Your task to perform on an android device: Add "logitech g502" to the cart on bestbuy.com Image 0: 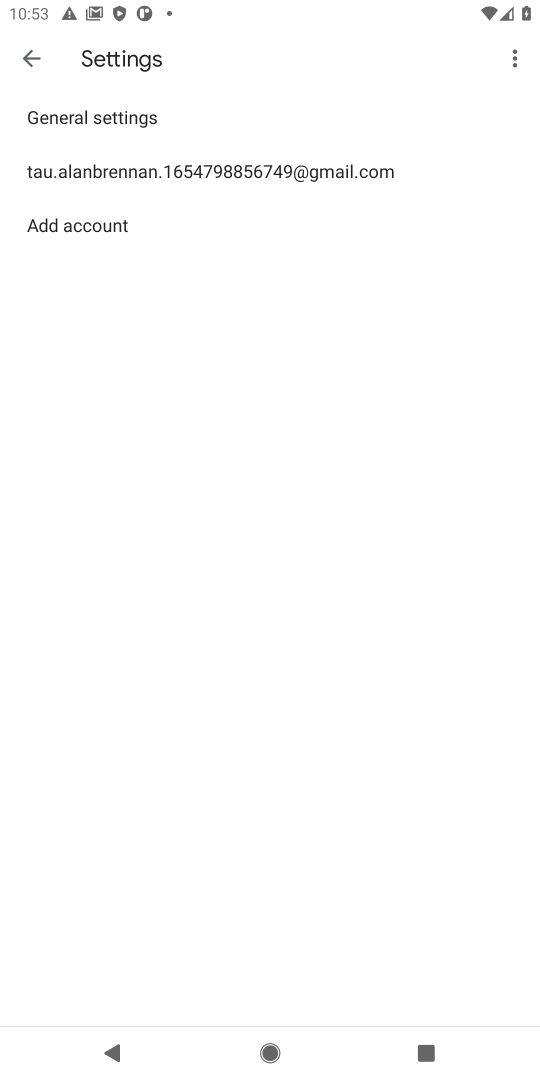
Step 0: press home button
Your task to perform on an android device: Add "logitech g502" to the cart on bestbuy.com Image 1: 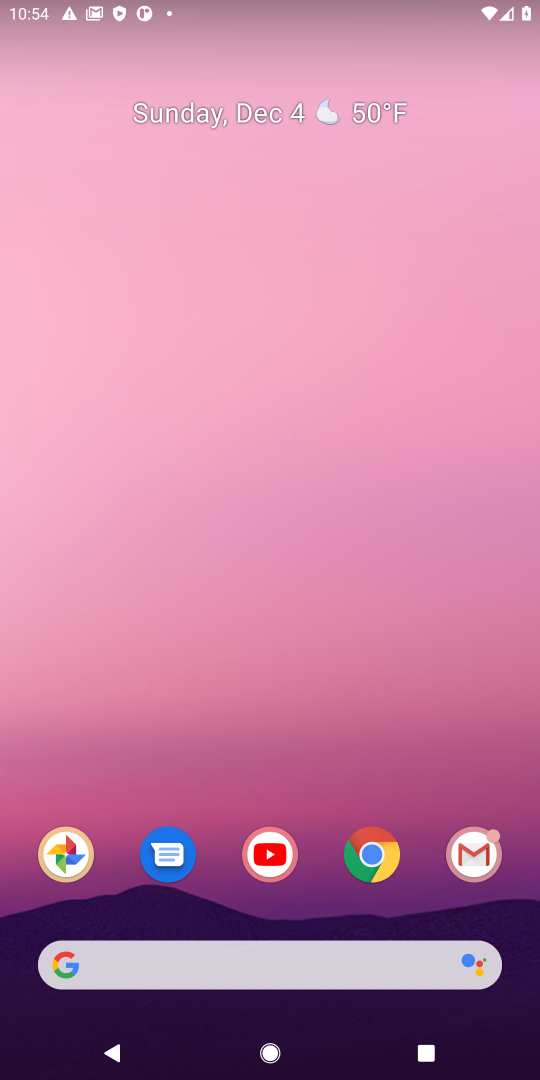
Step 1: click (199, 947)
Your task to perform on an android device: Add "logitech g502" to the cart on bestbuy.com Image 2: 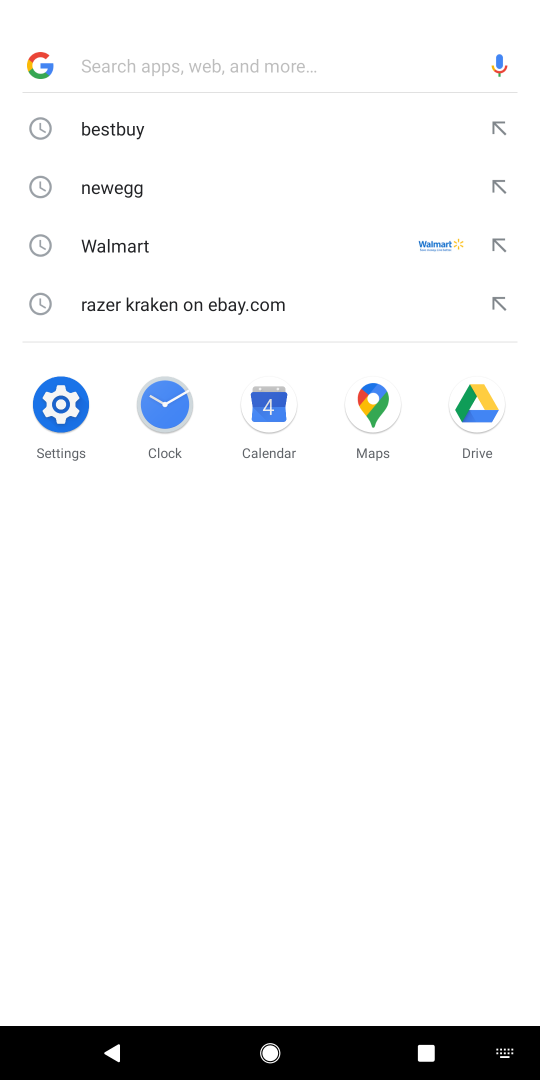
Step 2: type "bestbuy"
Your task to perform on an android device: Add "logitech g502" to the cart on bestbuy.com Image 3: 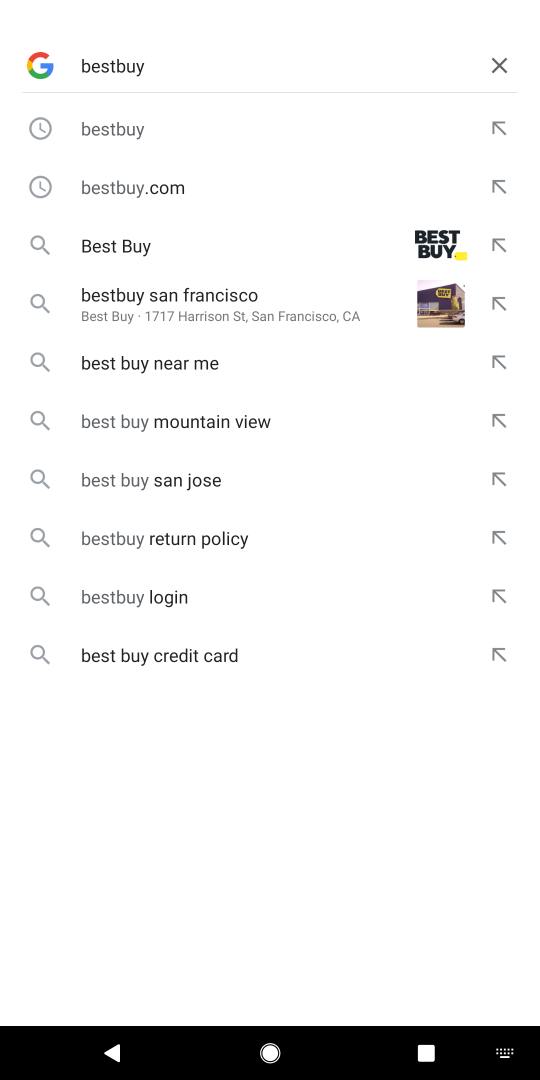
Step 3: click (92, 101)
Your task to perform on an android device: Add "logitech g502" to the cart on bestbuy.com Image 4: 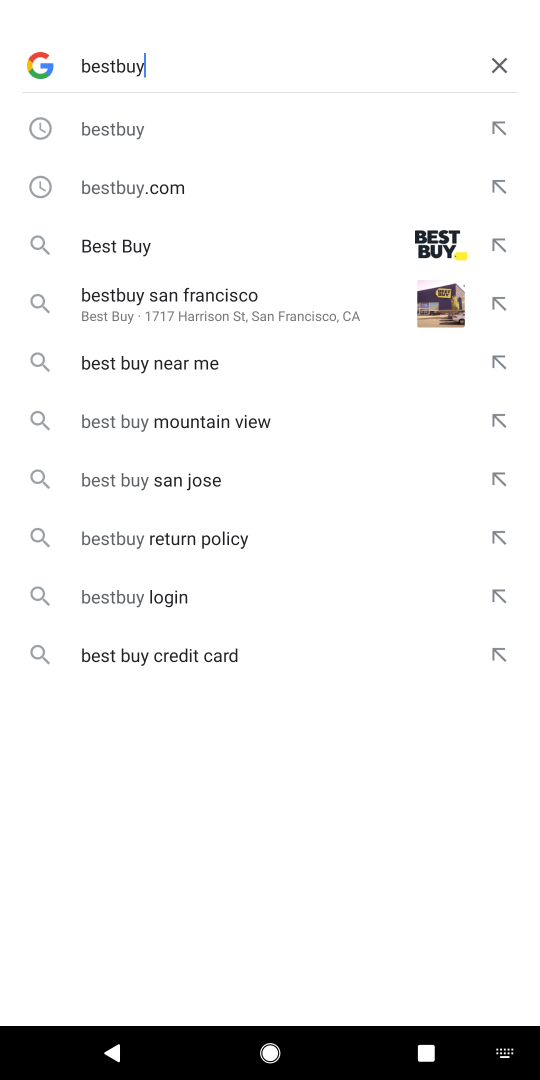
Step 4: click (121, 176)
Your task to perform on an android device: Add "logitech g502" to the cart on bestbuy.com Image 5: 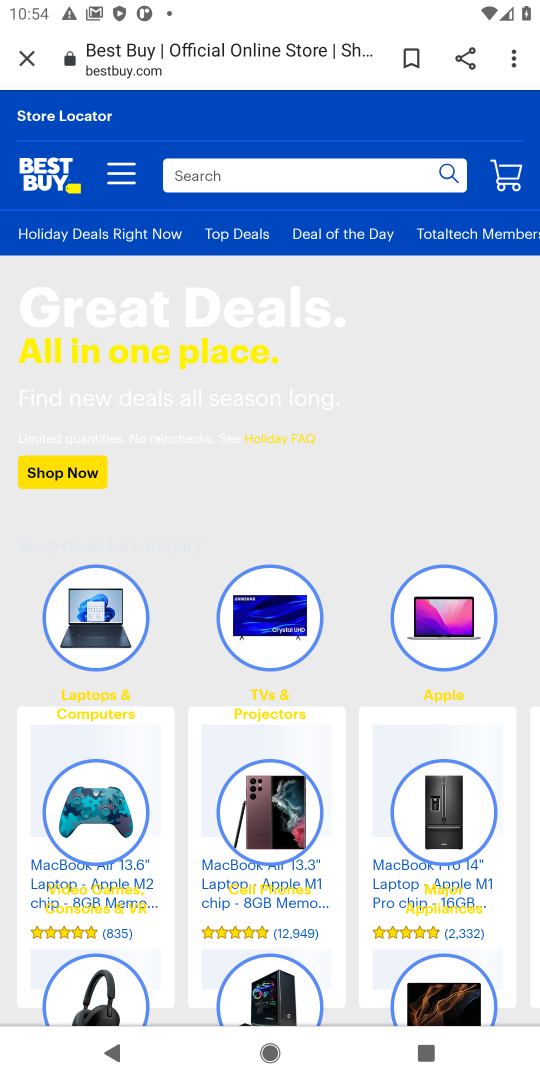
Step 5: click (264, 183)
Your task to perform on an android device: Add "logitech g502" to the cart on bestbuy.com Image 6: 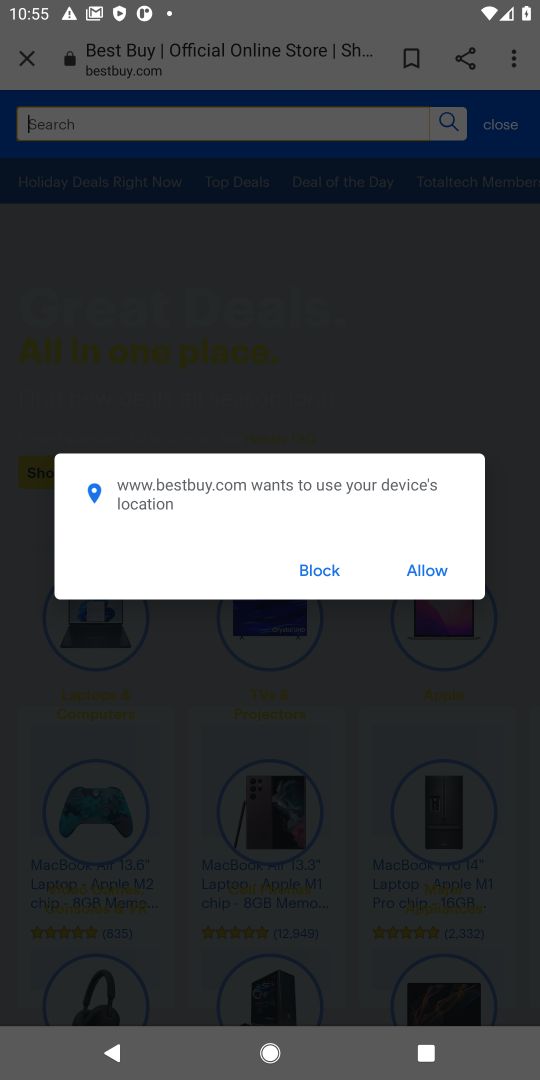
Step 6: type "logitech g502"
Your task to perform on an android device: Add "logitech g502" to the cart on bestbuy.com Image 7: 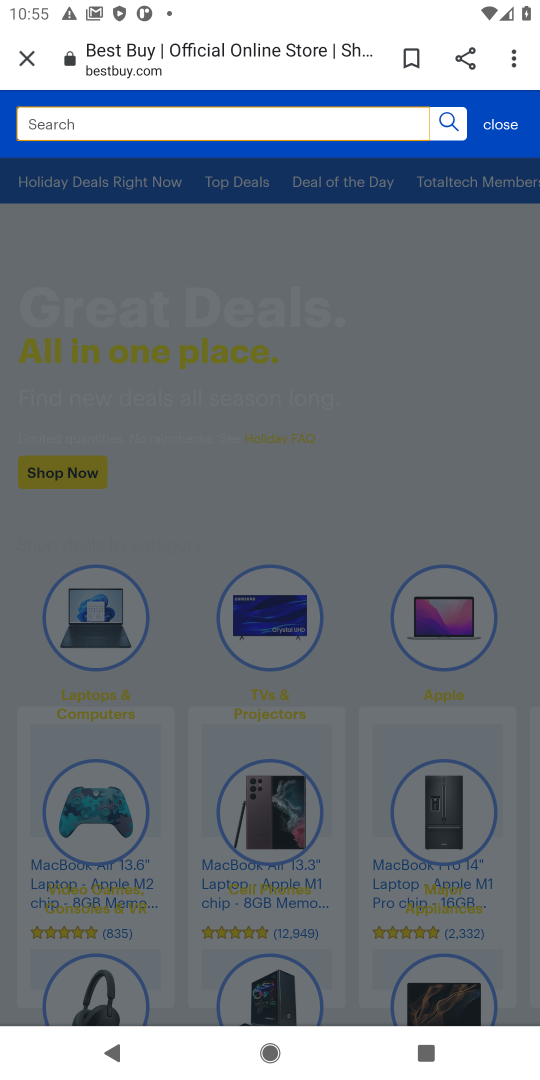
Step 7: task complete